Your task to perform on an android device: Search for Mexican restaurants on Maps Image 0: 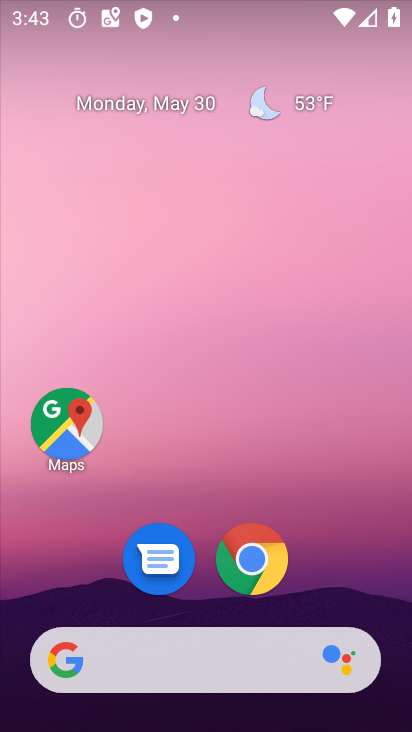
Step 0: drag from (209, 720) to (208, 25)
Your task to perform on an android device: Search for Mexican restaurants on Maps Image 1: 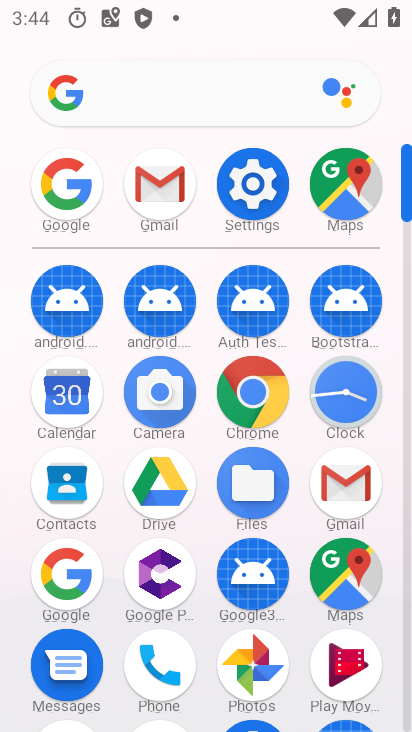
Step 1: click (338, 565)
Your task to perform on an android device: Search for Mexican restaurants on Maps Image 2: 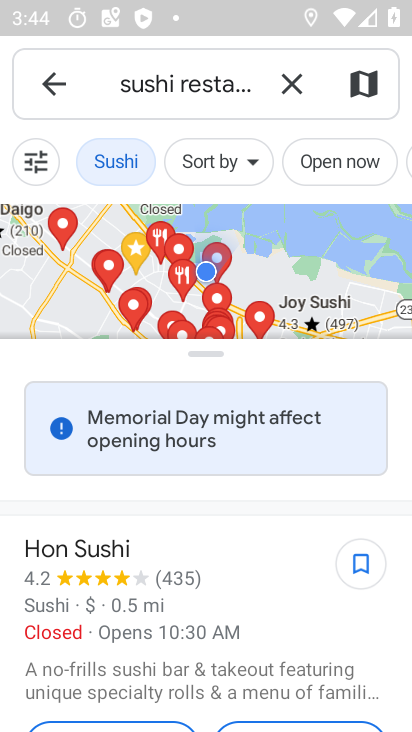
Step 2: click (292, 87)
Your task to perform on an android device: Search for Mexican restaurants on Maps Image 3: 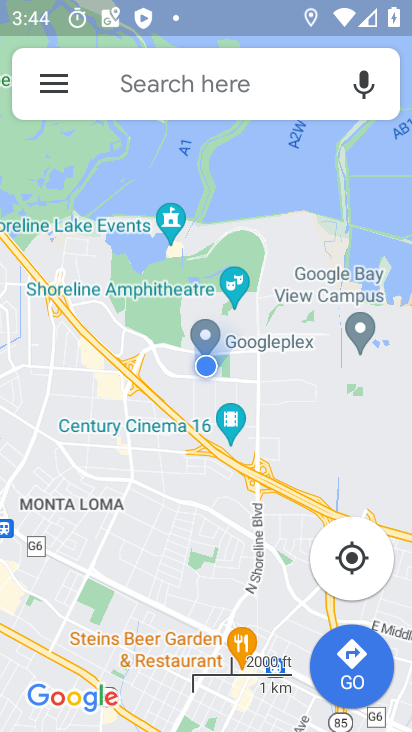
Step 3: click (172, 89)
Your task to perform on an android device: Search for Mexican restaurants on Maps Image 4: 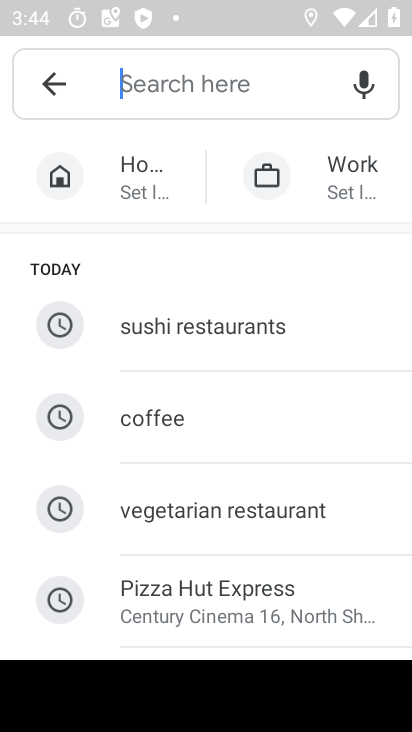
Step 4: type "Mexican restaurants"
Your task to perform on an android device: Search for Mexican restaurants on Maps Image 5: 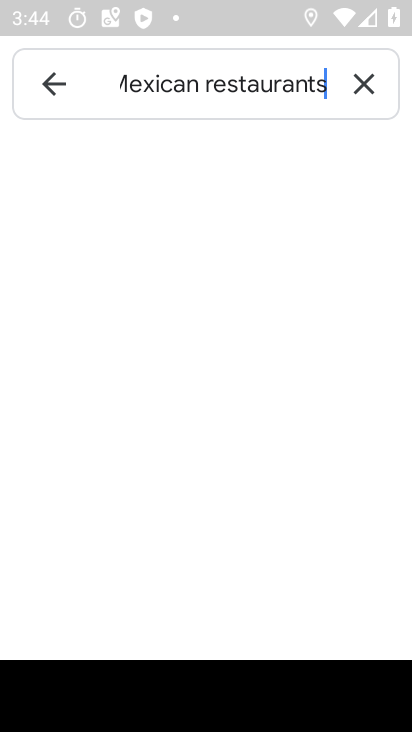
Step 5: type ""
Your task to perform on an android device: Search for Mexican restaurants on Maps Image 6: 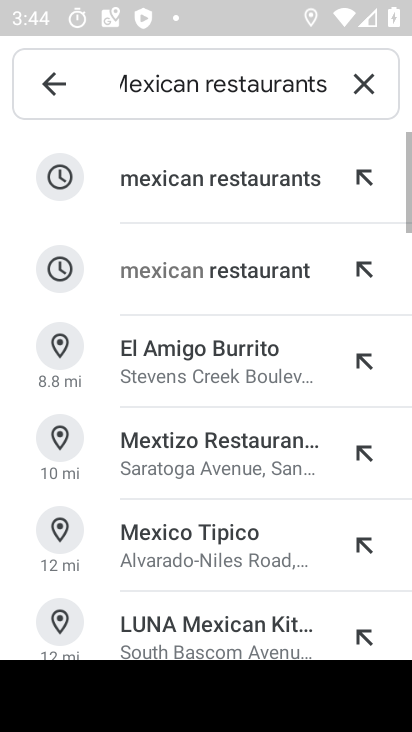
Step 6: click (196, 181)
Your task to perform on an android device: Search for Mexican restaurants on Maps Image 7: 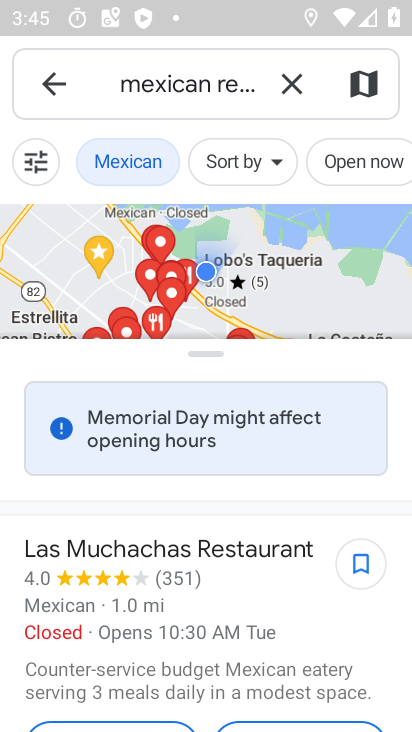
Step 7: task complete